Your task to perform on an android device: Open location settings Image 0: 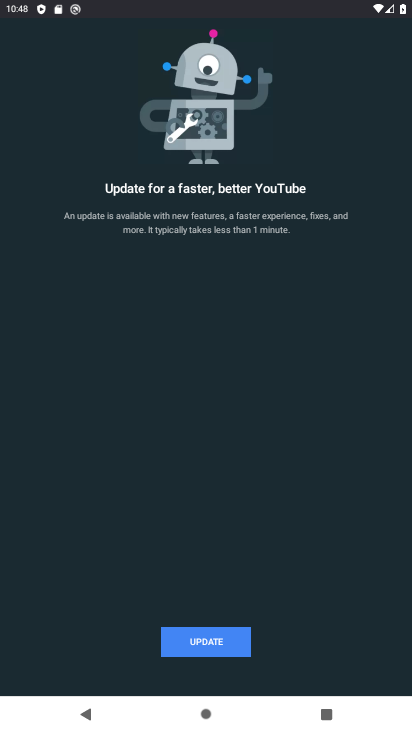
Step 0: press home button
Your task to perform on an android device: Open location settings Image 1: 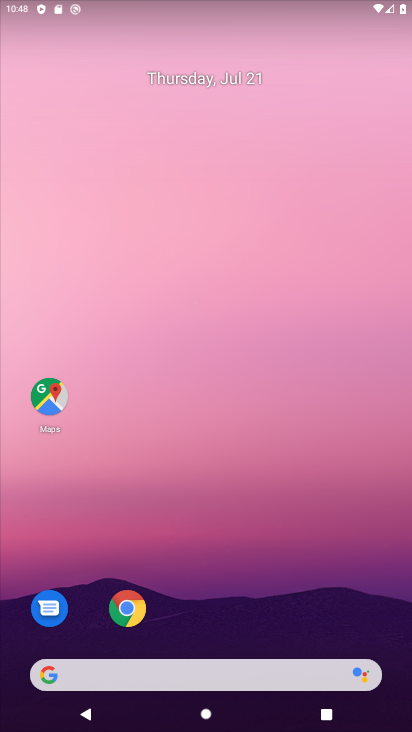
Step 1: drag from (205, 633) to (183, 208)
Your task to perform on an android device: Open location settings Image 2: 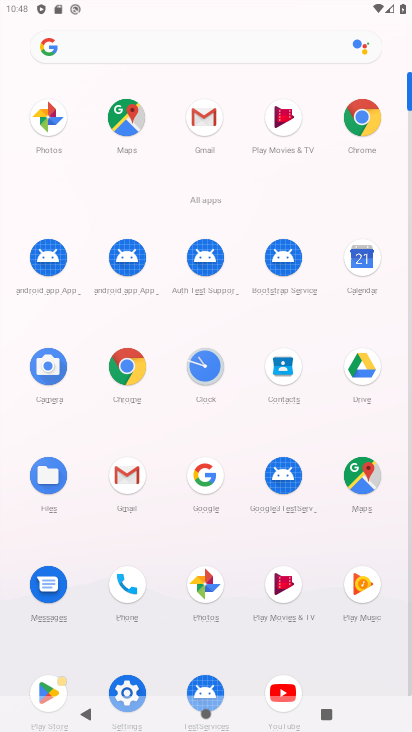
Step 2: click (132, 686)
Your task to perform on an android device: Open location settings Image 3: 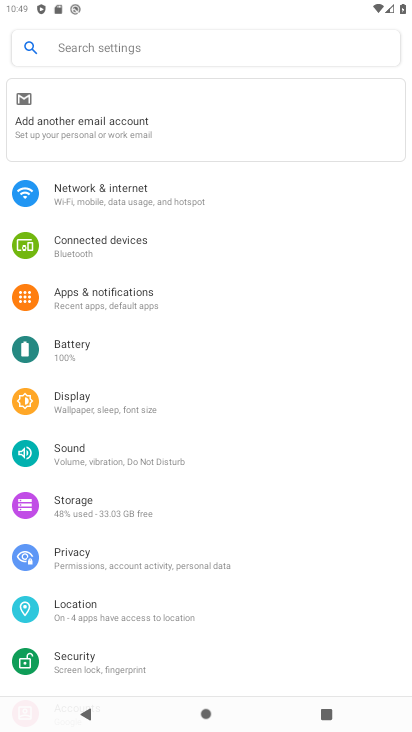
Step 3: click (121, 599)
Your task to perform on an android device: Open location settings Image 4: 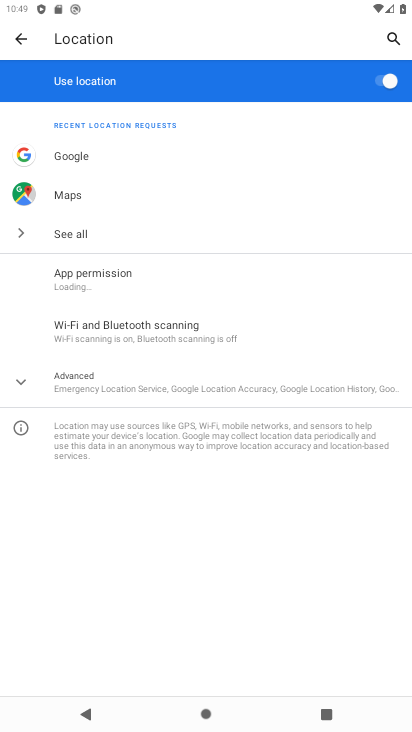
Step 4: task complete